Your task to perform on an android device: Search for Mexican restaurants on Maps Image 0: 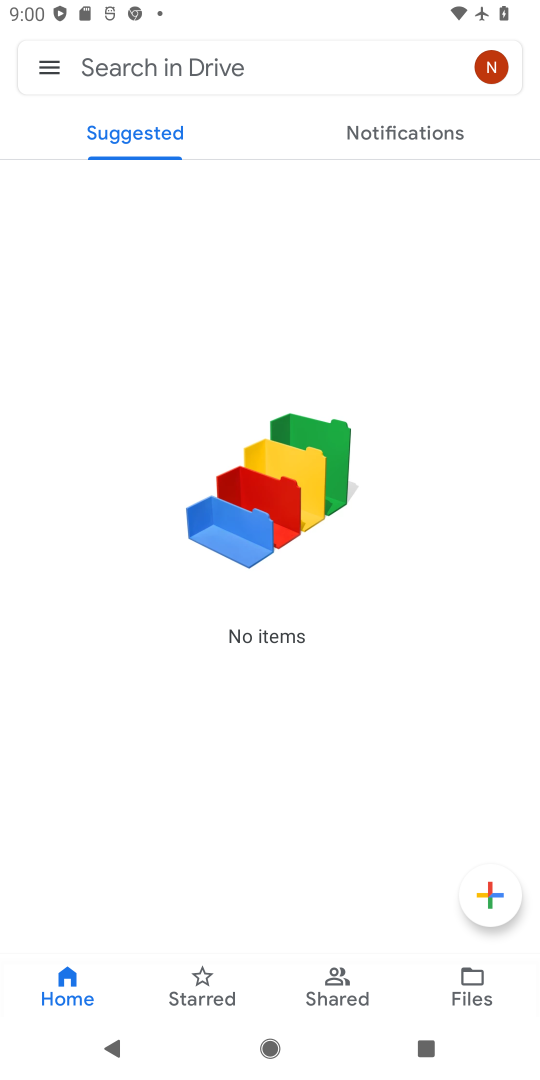
Step 0: press home button
Your task to perform on an android device: Search for Mexican restaurants on Maps Image 1: 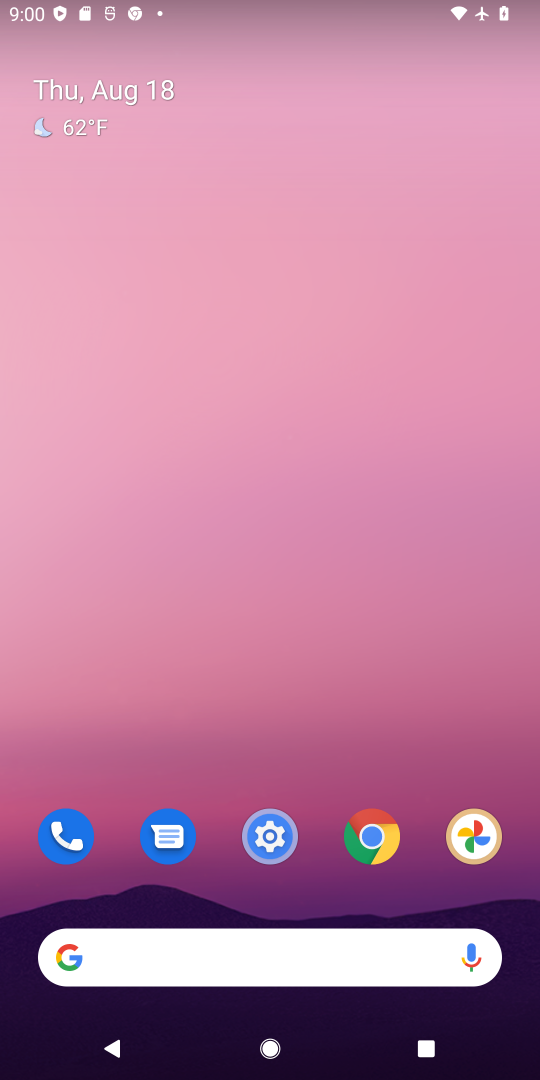
Step 1: drag from (316, 763) to (405, 1)
Your task to perform on an android device: Search for Mexican restaurants on Maps Image 2: 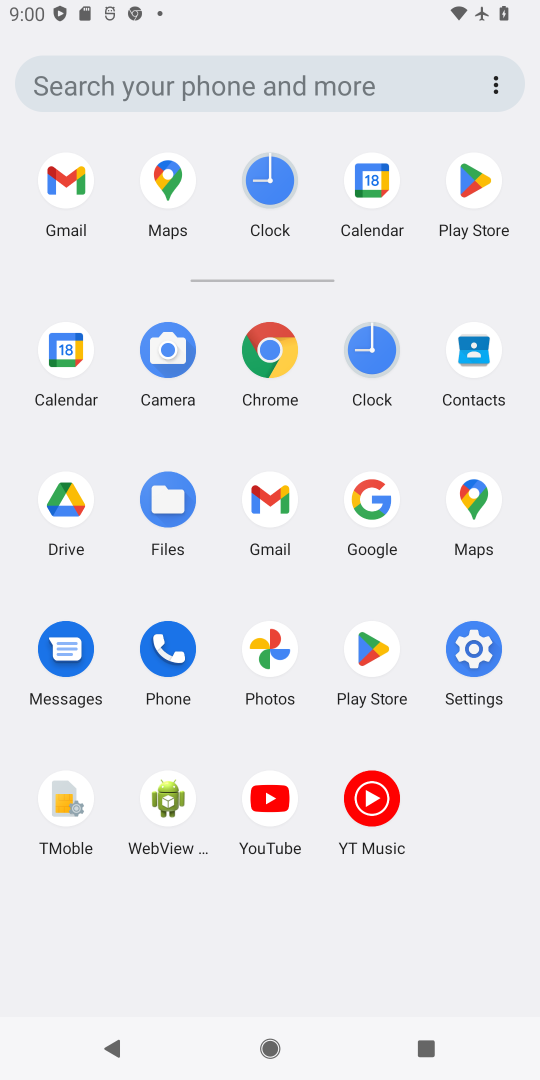
Step 2: click (469, 492)
Your task to perform on an android device: Search for Mexican restaurants on Maps Image 3: 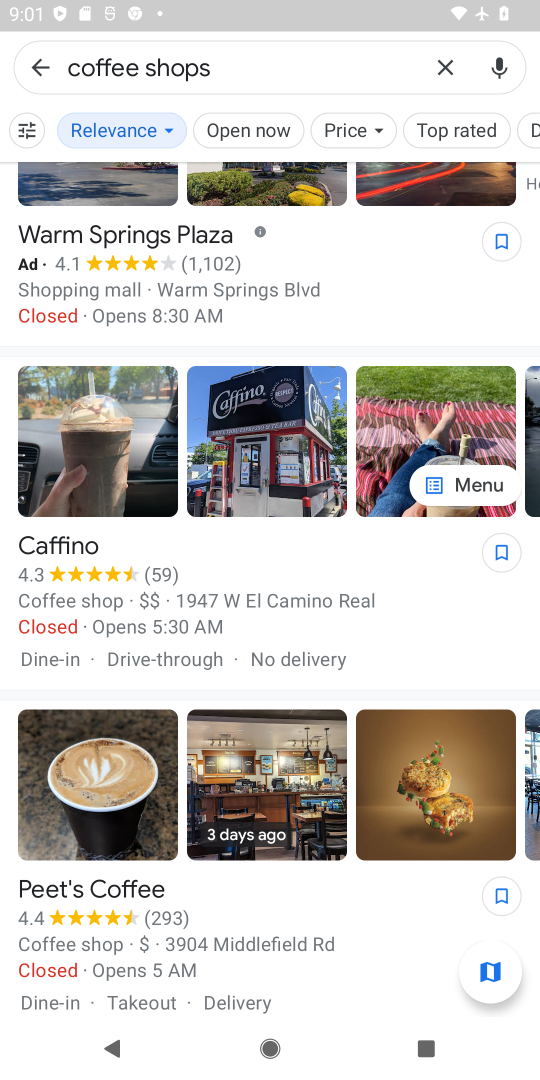
Step 3: click (435, 69)
Your task to perform on an android device: Search for Mexican restaurants on Maps Image 4: 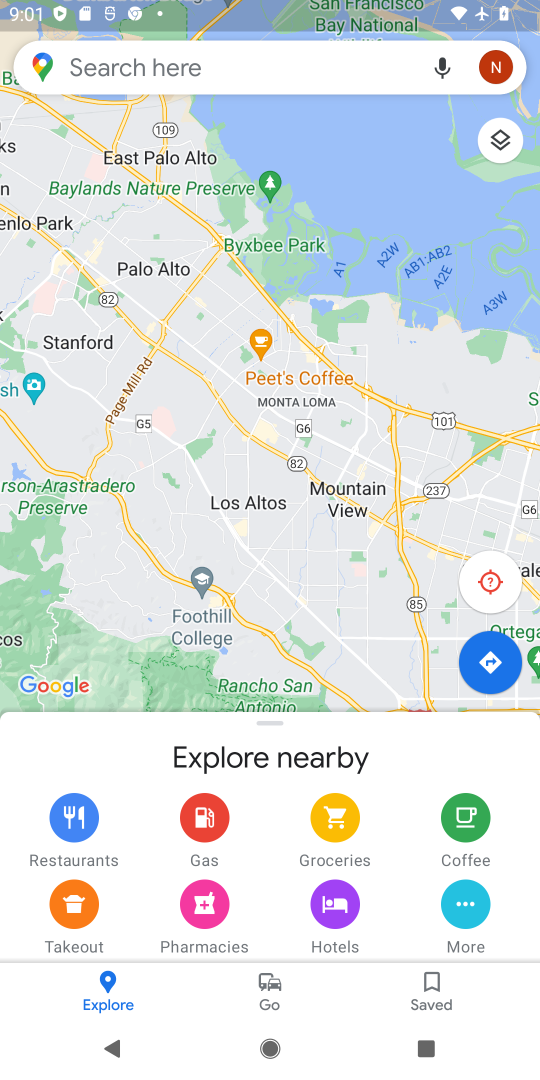
Step 4: click (329, 71)
Your task to perform on an android device: Search for Mexican restaurants on Maps Image 5: 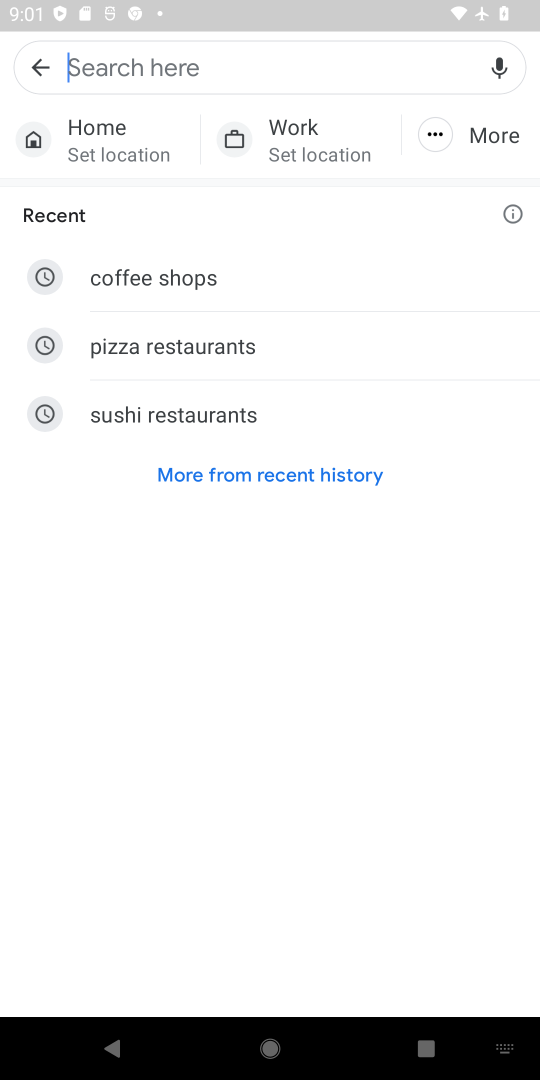
Step 5: type "Mexican restaurants"
Your task to perform on an android device: Search for Mexican restaurants on Maps Image 6: 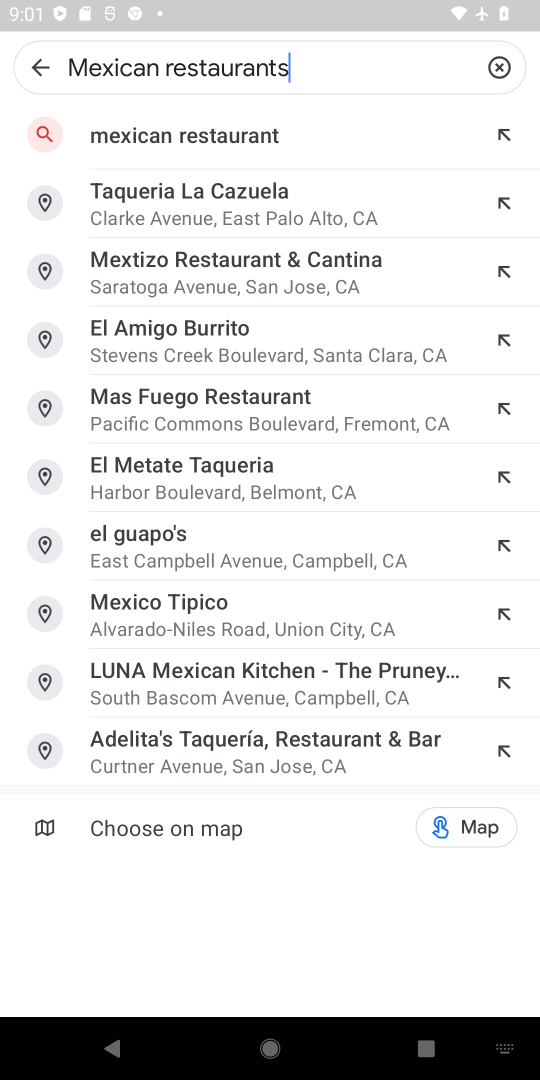
Step 6: click (267, 129)
Your task to perform on an android device: Search for Mexican restaurants on Maps Image 7: 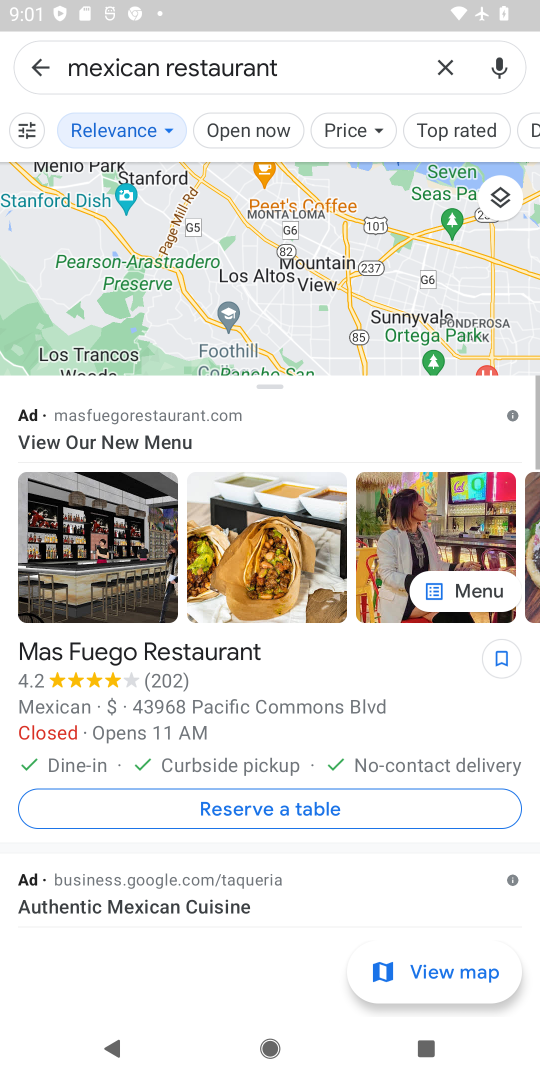
Step 7: task complete